Your task to perform on an android device: change the clock display to show seconds Image 0: 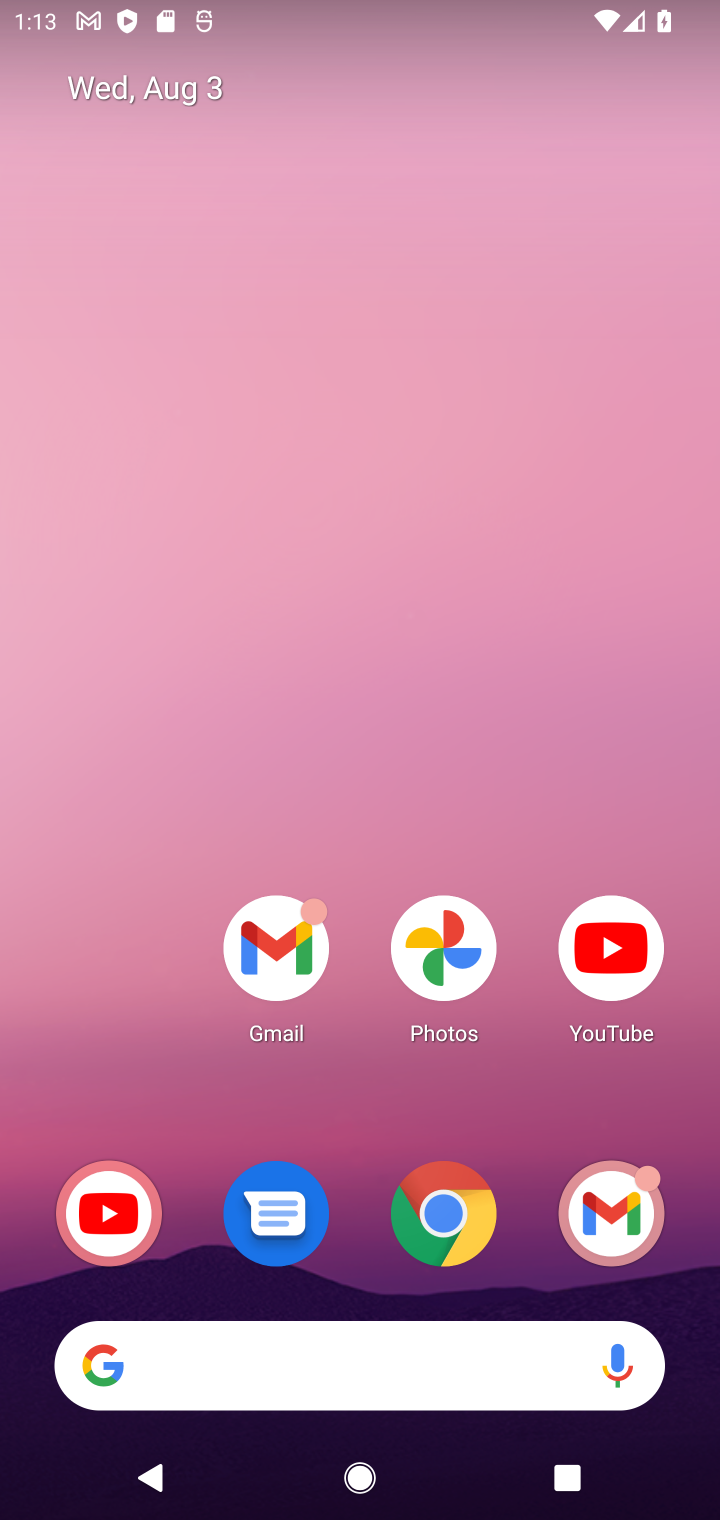
Step 0: drag from (486, 1310) to (610, 13)
Your task to perform on an android device: change the clock display to show seconds Image 1: 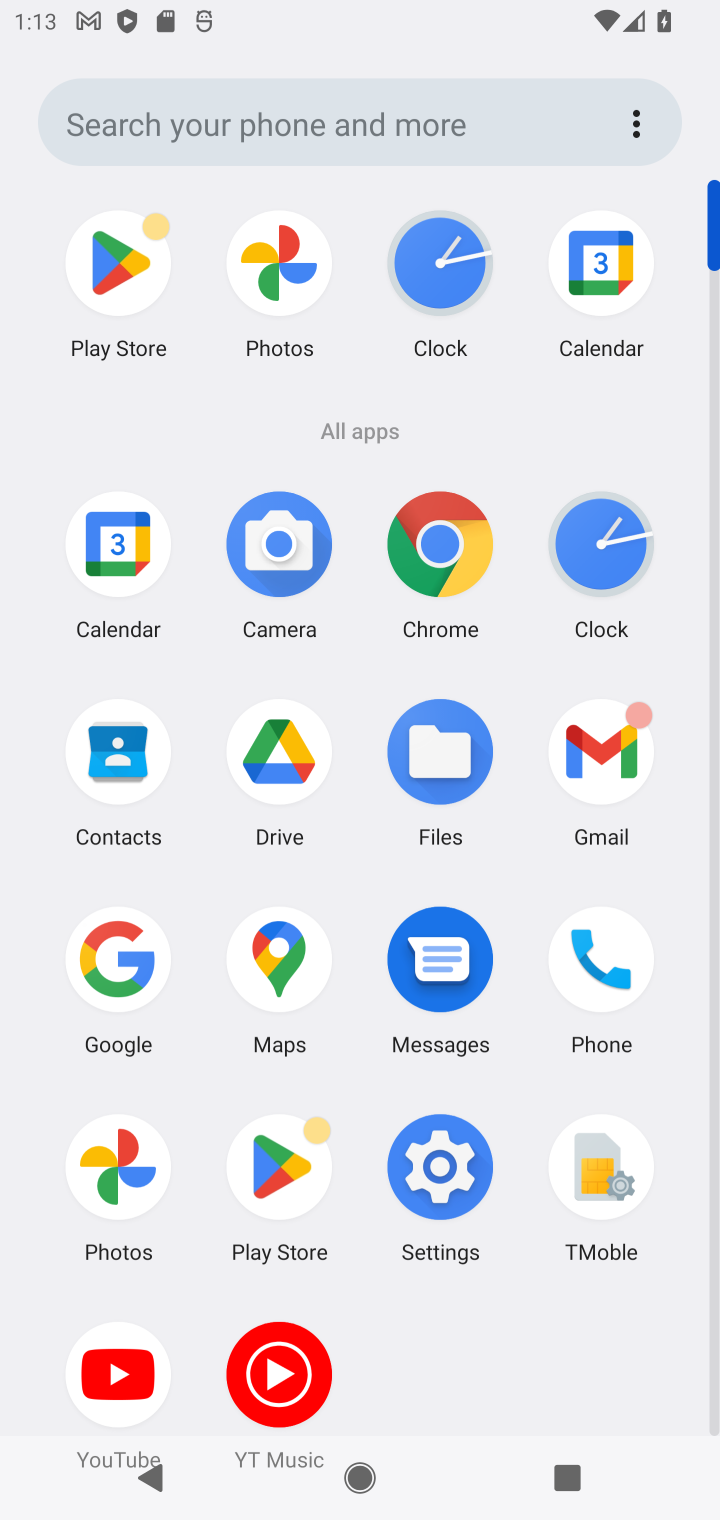
Step 1: click (624, 568)
Your task to perform on an android device: change the clock display to show seconds Image 2: 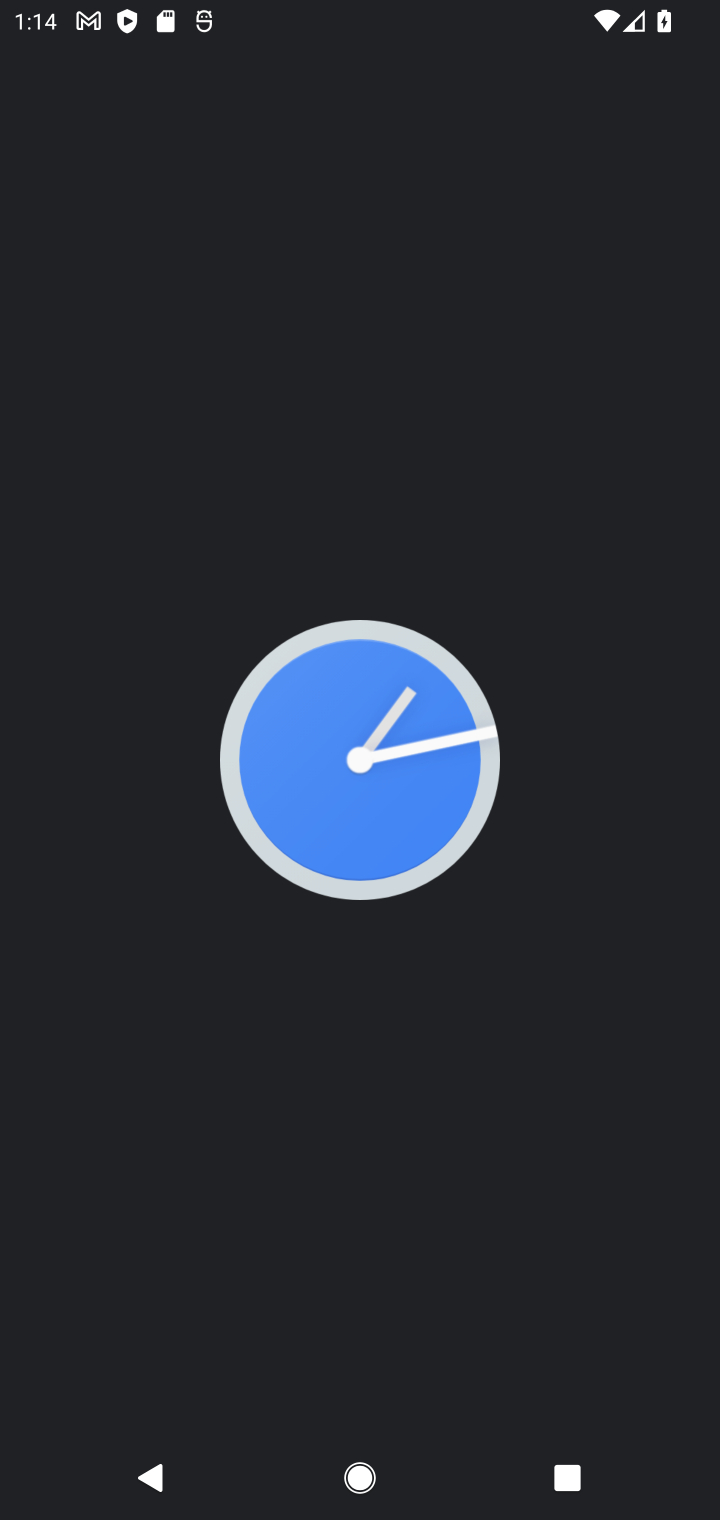
Step 2: click (624, 568)
Your task to perform on an android device: change the clock display to show seconds Image 3: 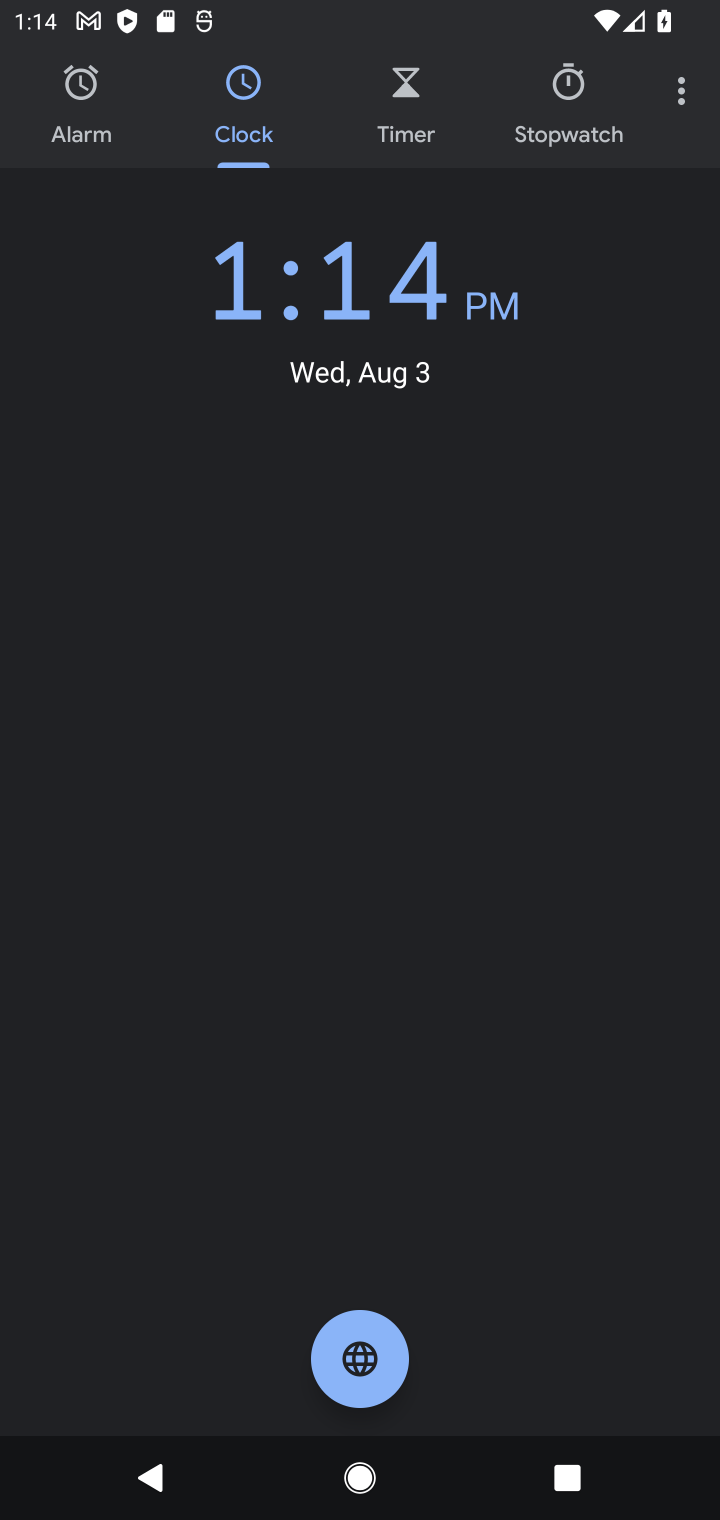
Step 3: click (682, 100)
Your task to perform on an android device: change the clock display to show seconds Image 4: 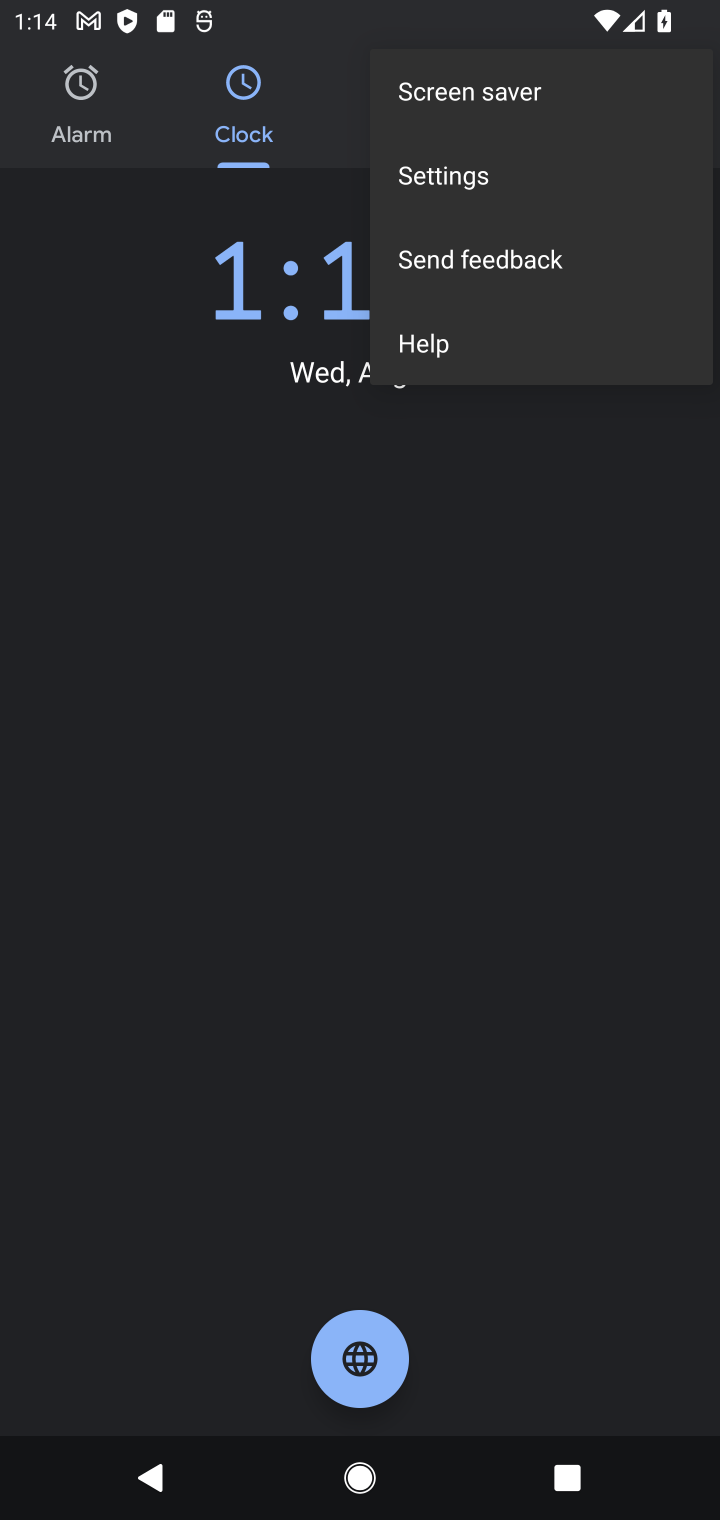
Step 4: click (454, 185)
Your task to perform on an android device: change the clock display to show seconds Image 5: 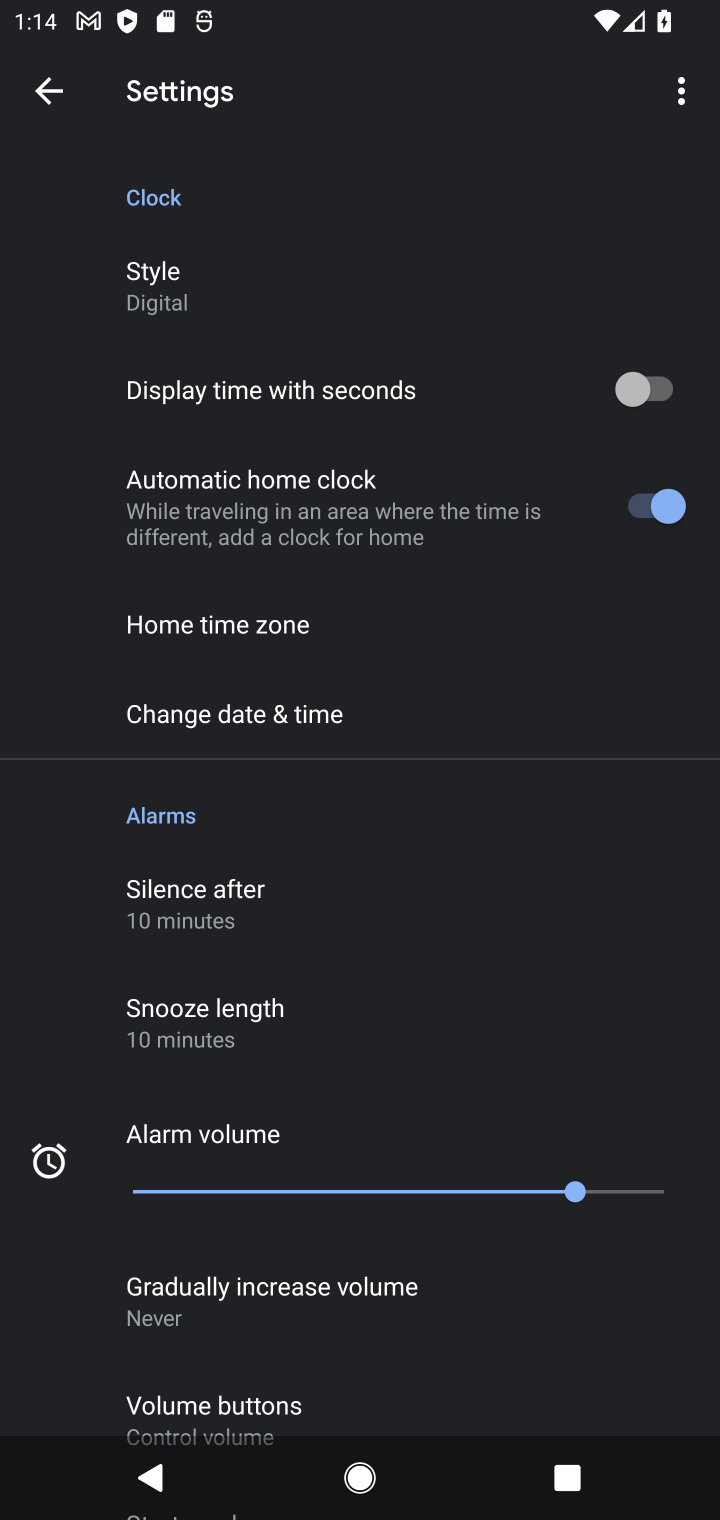
Step 5: click (670, 391)
Your task to perform on an android device: change the clock display to show seconds Image 6: 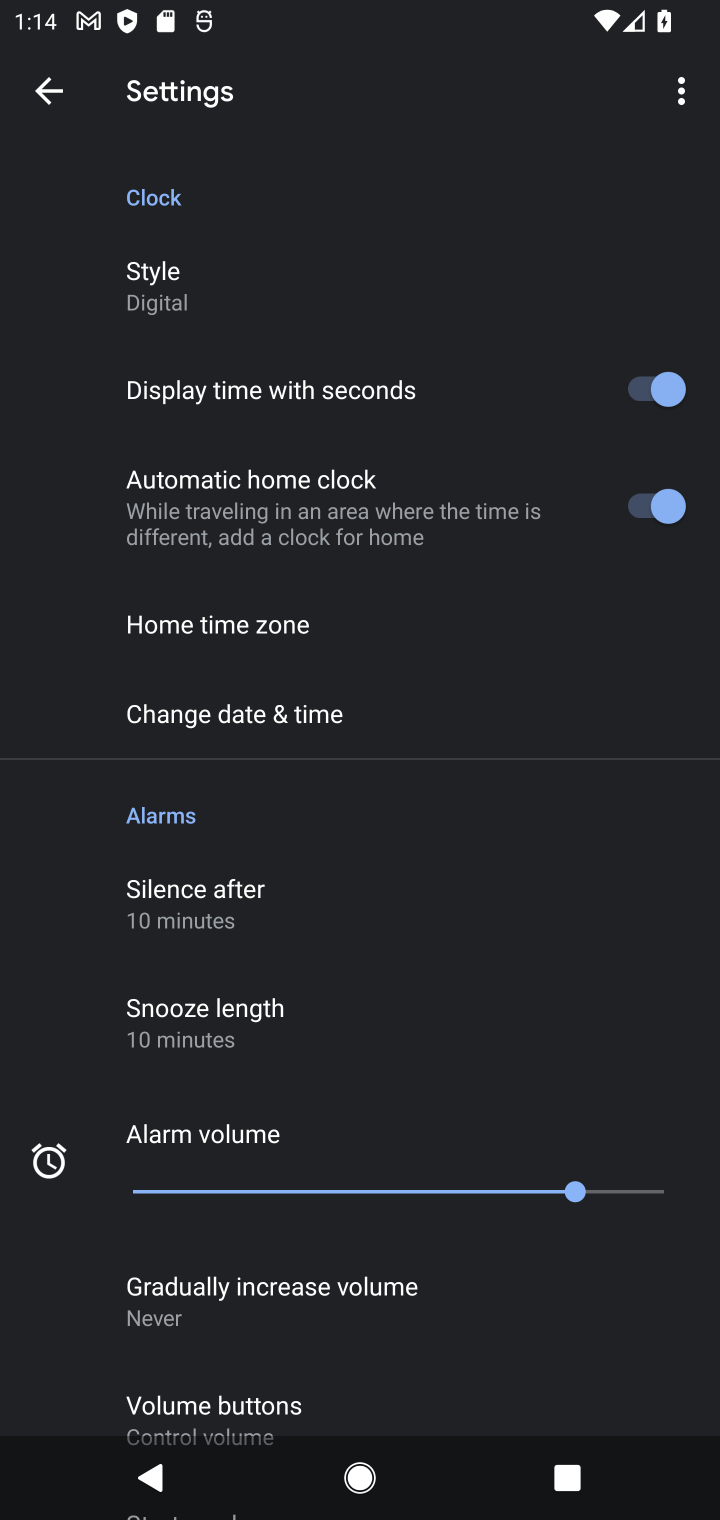
Step 6: task complete